Your task to perform on an android device: Check the weather Image 0: 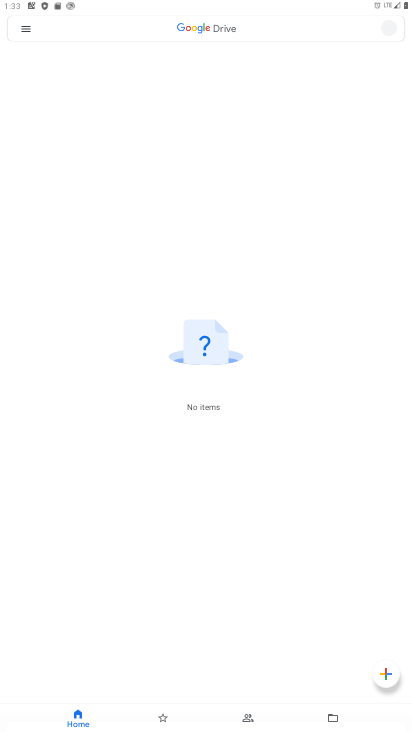
Step 0: drag from (213, 646) to (226, 252)
Your task to perform on an android device: Check the weather Image 1: 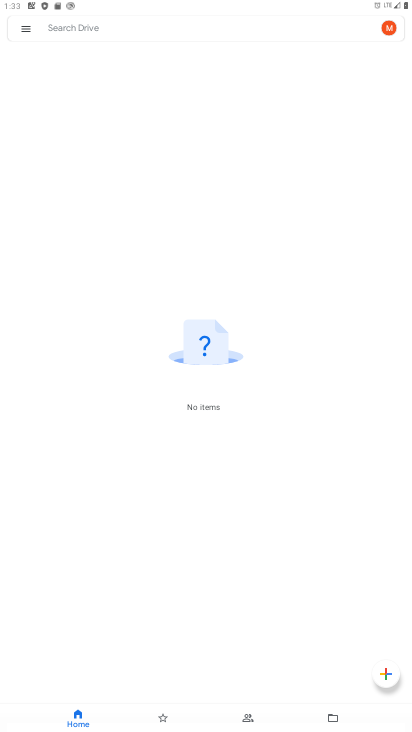
Step 1: press home button
Your task to perform on an android device: Check the weather Image 2: 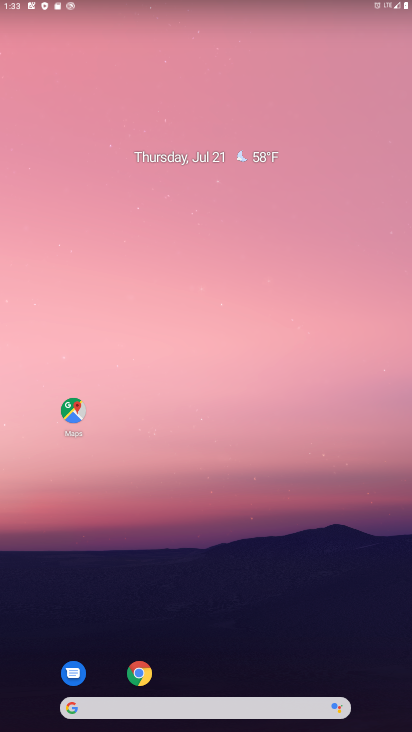
Step 2: click (143, 675)
Your task to perform on an android device: Check the weather Image 3: 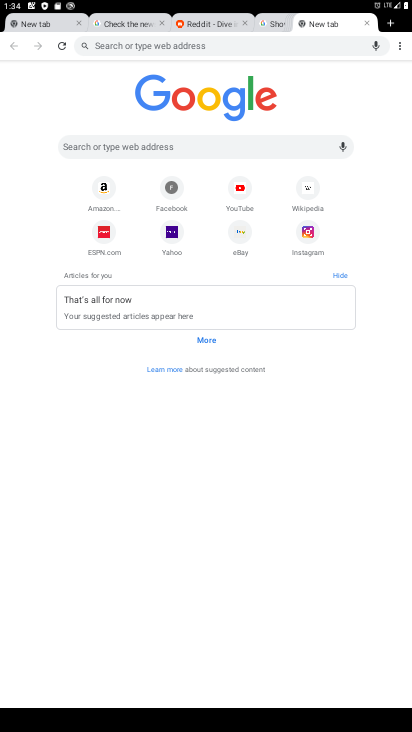
Step 3: click (178, 146)
Your task to perform on an android device: Check the weather Image 4: 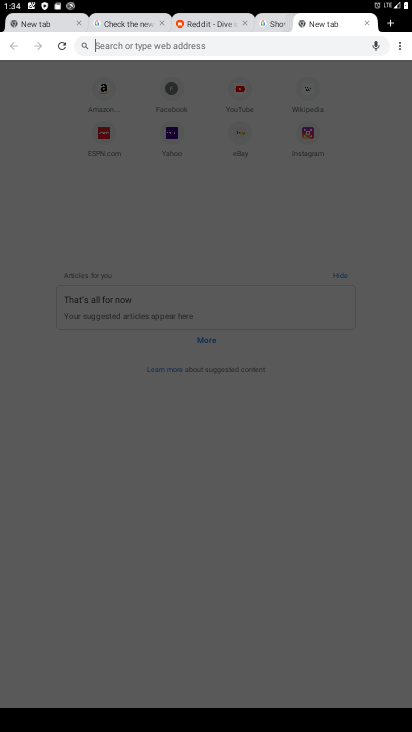
Step 4: type "Check the weather "
Your task to perform on an android device: Check the weather Image 5: 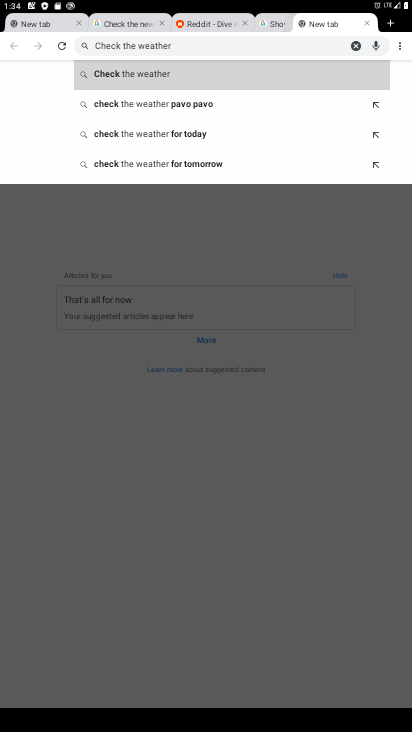
Step 5: click (190, 64)
Your task to perform on an android device: Check the weather Image 6: 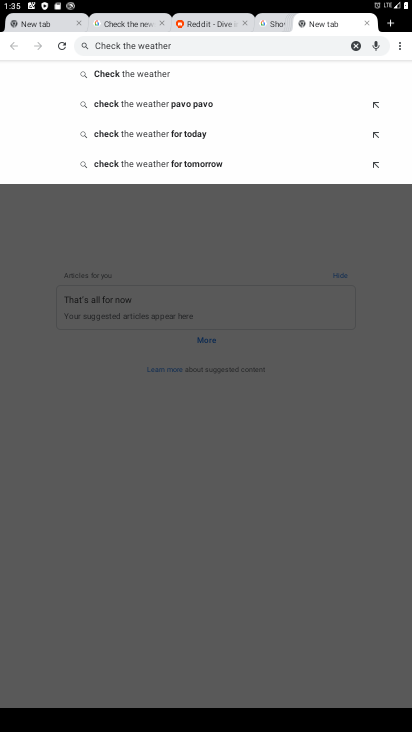
Step 6: click (147, 71)
Your task to perform on an android device: Check the weather Image 7: 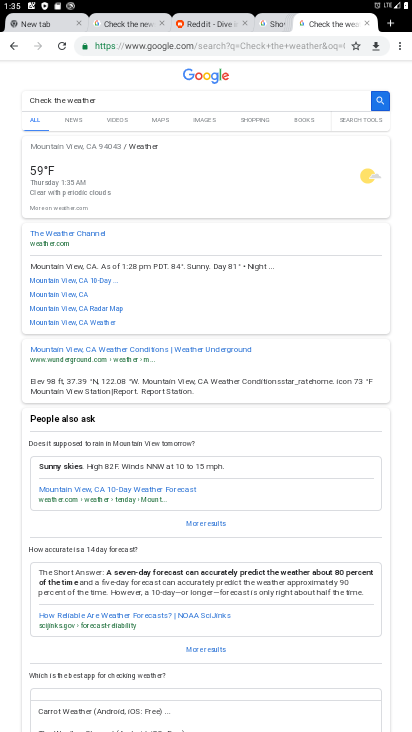
Step 7: task complete